Your task to perform on an android device: manage bookmarks in the chrome app Image 0: 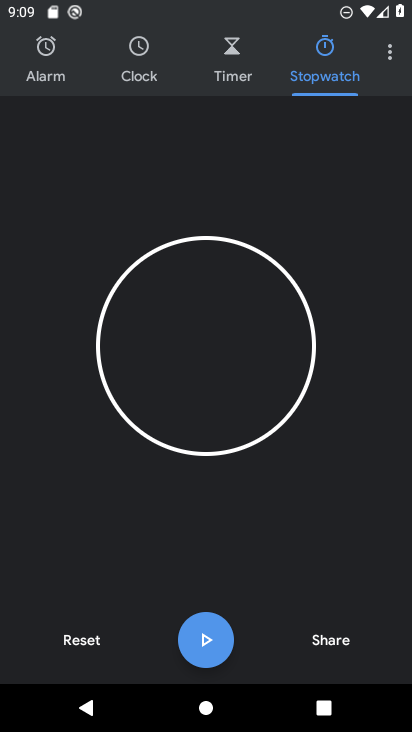
Step 0: press home button
Your task to perform on an android device: manage bookmarks in the chrome app Image 1: 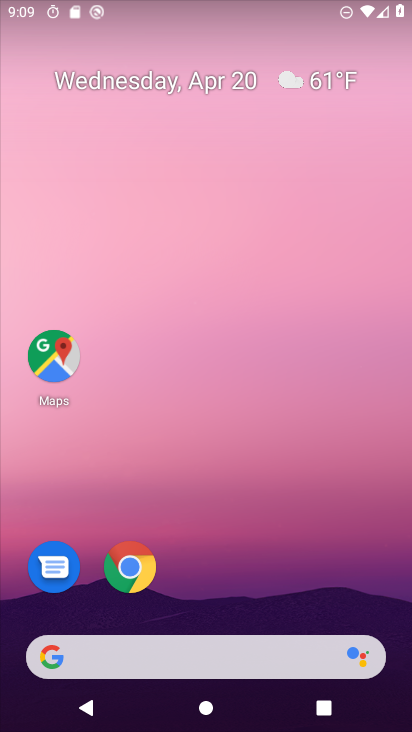
Step 1: click (132, 573)
Your task to perform on an android device: manage bookmarks in the chrome app Image 2: 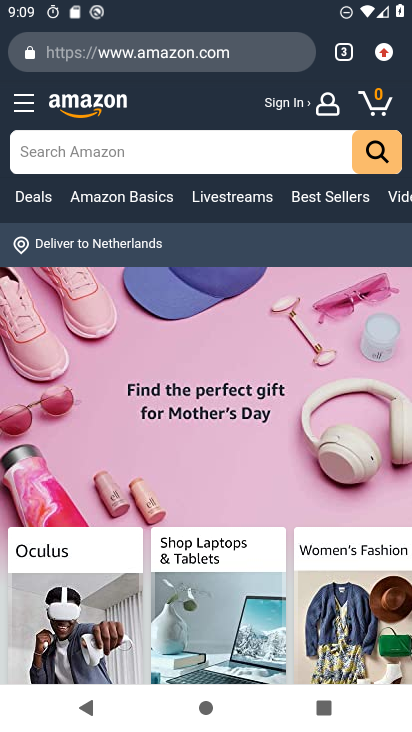
Step 2: click (391, 54)
Your task to perform on an android device: manage bookmarks in the chrome app Image 3: 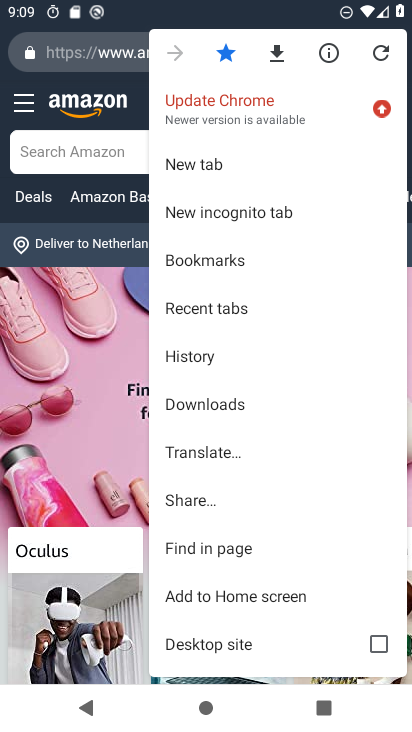
Step 3: click (205, 263)
Your task to perform on an android device: manage bookmarks in the chrome app Image 4: 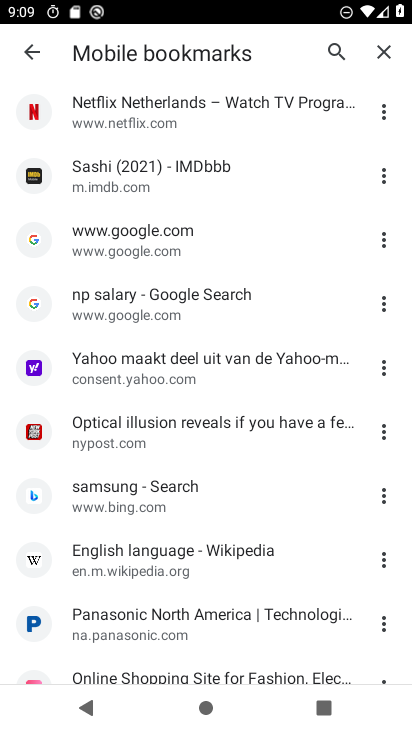
Step 4: click (380, 302)
Your task to perform on an android device: manage bookmarks in the chrome app Image 5: 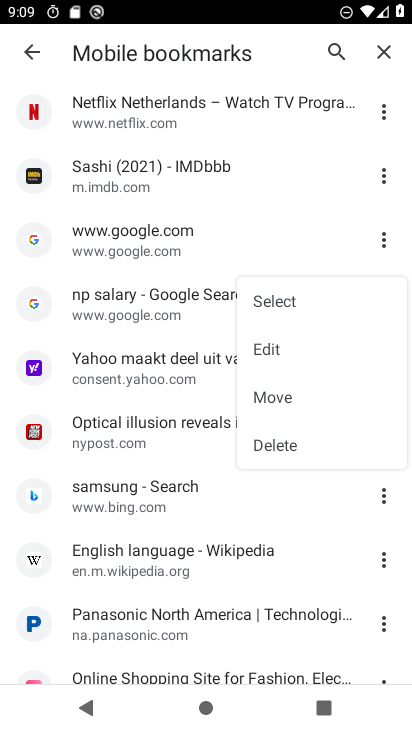
Step 5: click (380, 302)
Your task to perform on an android device: manage bookmarks in the chrome app Image 6: 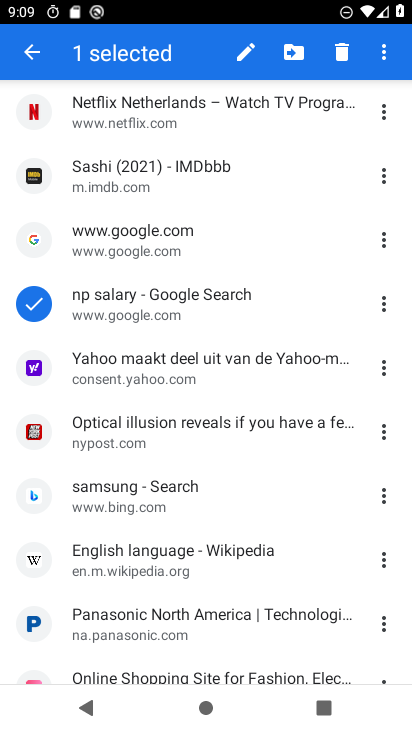
Step 6: click (384, 302)
Your task to perform on an android device: manage bookmarks in the chrome app Image 7: 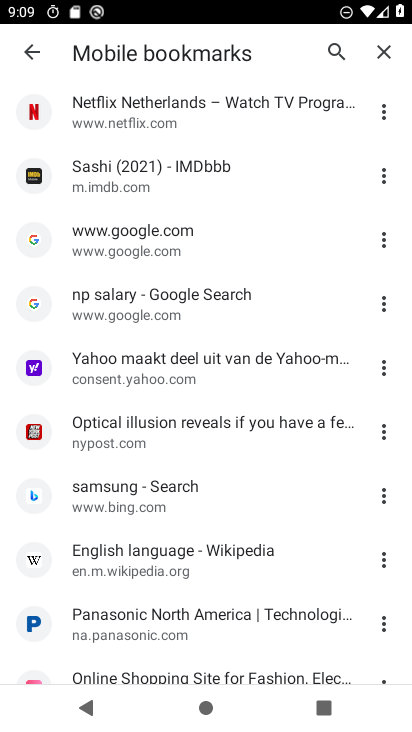
Step 7: click (386, 309)
Your task to perform on an android device: manage bookmarks in the chrome app Image 8: 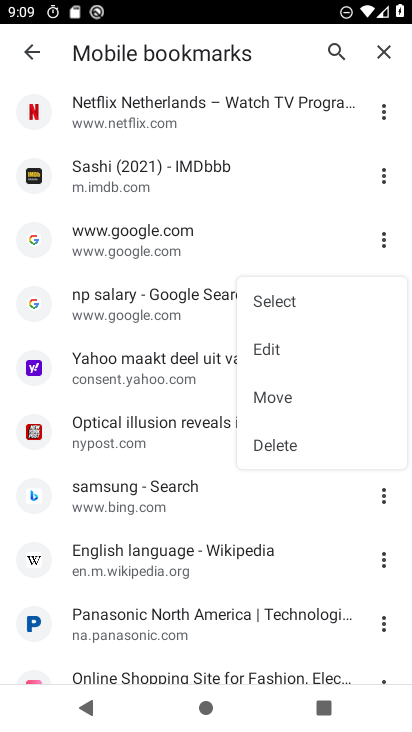
Step 8: click (280, 396)
Your task to perform on an android device: manage bookmarks in the chrome app Image 9: 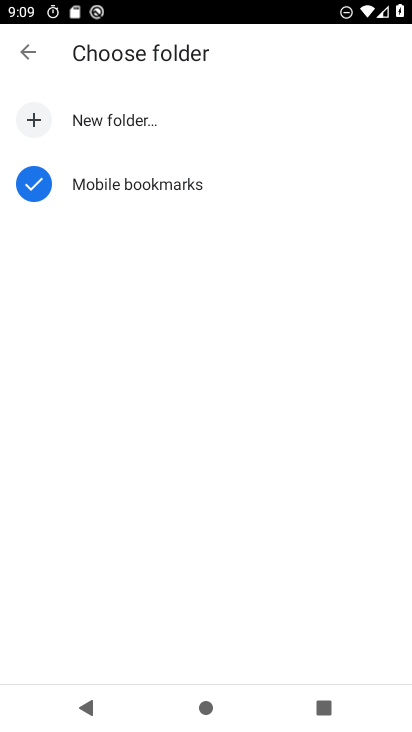
Step 9: click (147, 183)
Your task to perform on an android device: manage bookmarks in the chrome app Image 10: 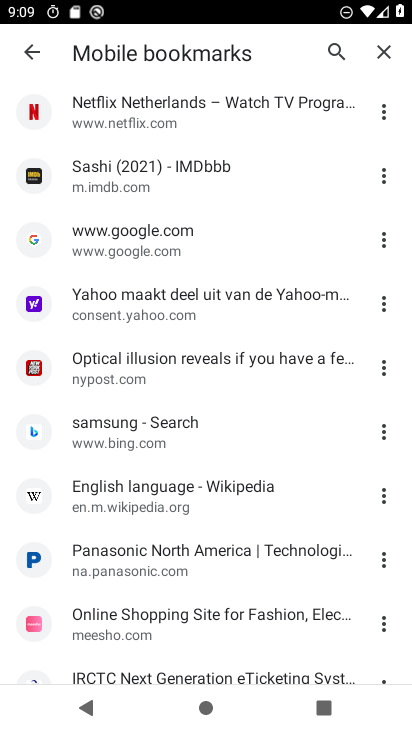
Step 10: task complete